Your task to perform on an android device: turn on javascript in the chrome app Image 0: 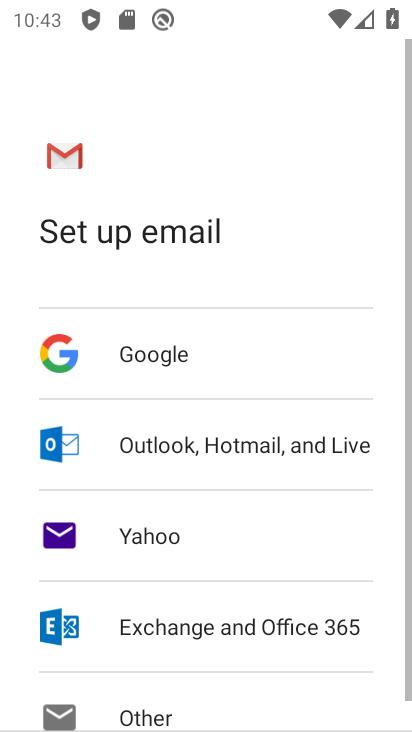
Step 0: press home button
Your task to perform on an android device: turn on javascript in the chrome app Image 1: 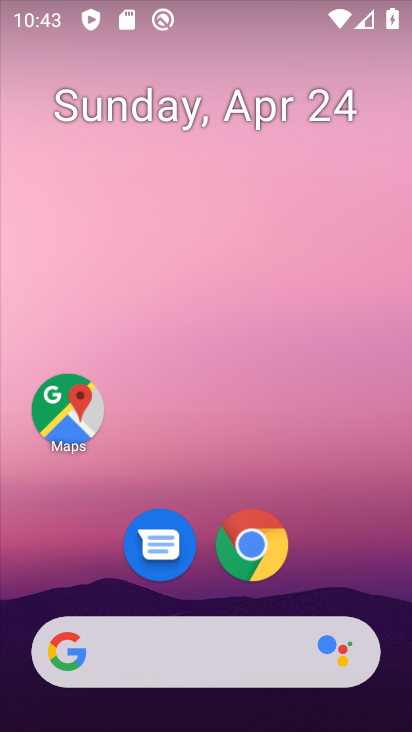
Step 1: drag from (347, 612) to (401, 122)
Your task to perform on an android device: turn on javascript in the chrome app Image 2: 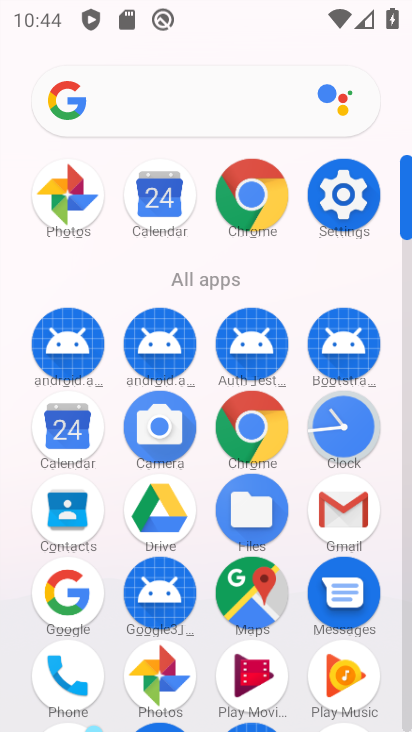
Step 2: click (251, 176)
Your task to perform on an android device: turn on javascript in the chrome app Image 3: 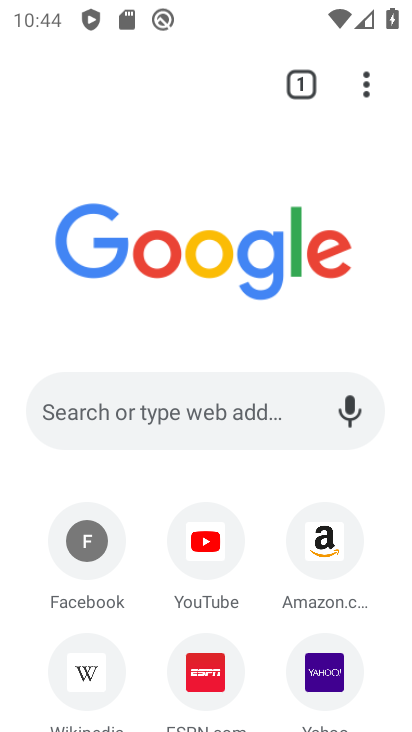
Step 3: click (357, 86)
Your task to perform on an android device: turn on javascript in the chrome app Image 4: 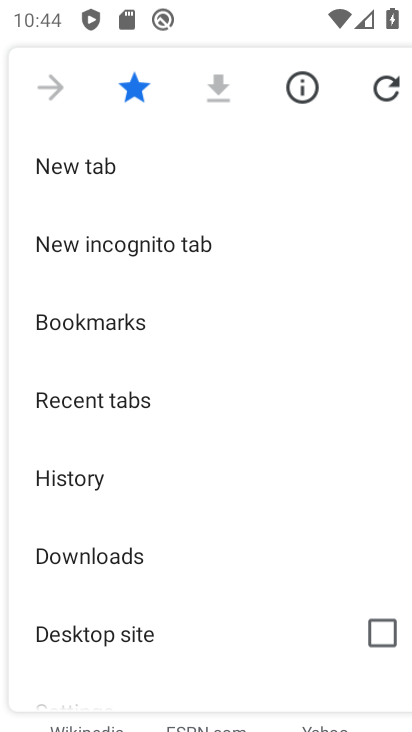
Step 4: drag from (187, 643) to (199, 562)
Your task to perform on an android device: turn on javascript in the chrome app Image 5: 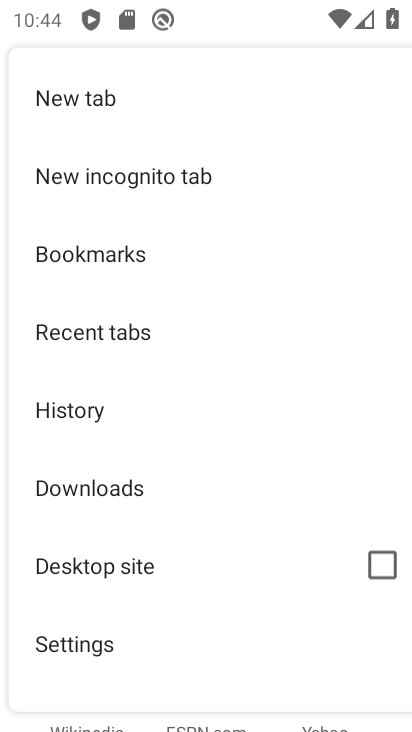
Step 5: click (95, 637)
Your task to perform on an android device: turn on javascript in the chrome app Image 6: 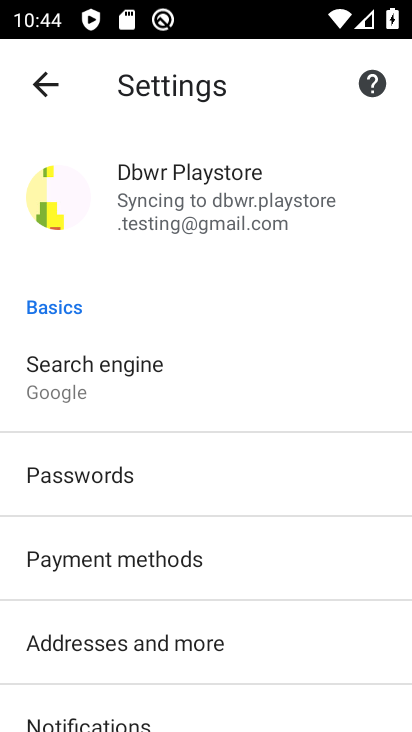
Step 6: drag from (170, 675) to (175, 519)
Your task to perform on an android device: turn on javascript in the chrome app Image 7: 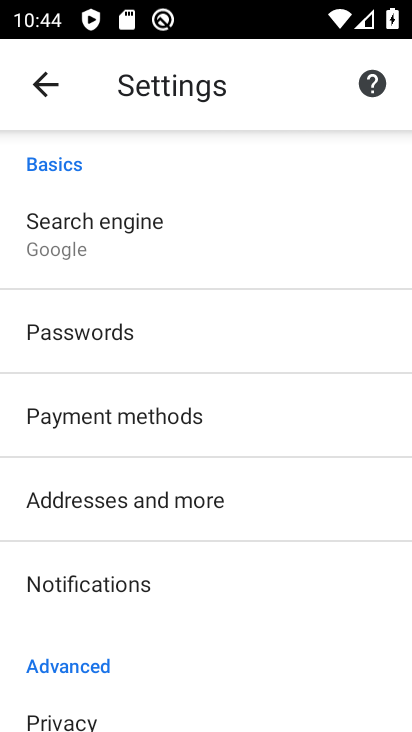
Step 7: drag from (147, 575) to (167, 479)
Your task to perform on an android device: turn on javascript in the chrome app Image 8: 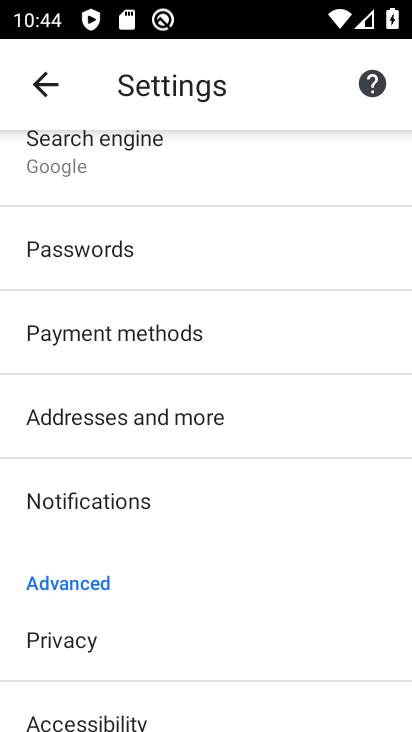
Step 8: drag from (154, 596) to (172, 326)
Your task to perform on an android device: turn on javascript in the chrome app Image 9: 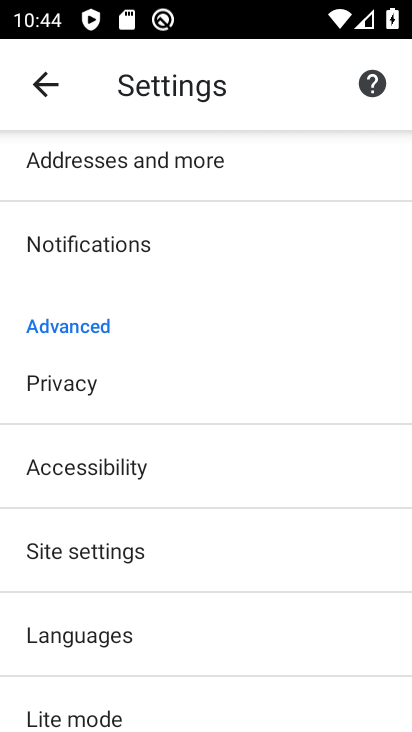
Step 9: click (108, 551)
Your task to perform on an android device: turn on javascript in the chrome app Image 10: 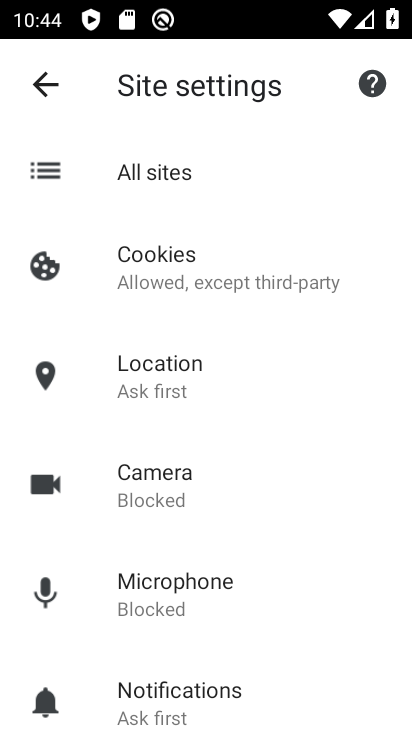
Step 10: drag from (231, 596) to (204, 385)
Your task to perform on an android device: turn on javascript in the chrome app Image 11: 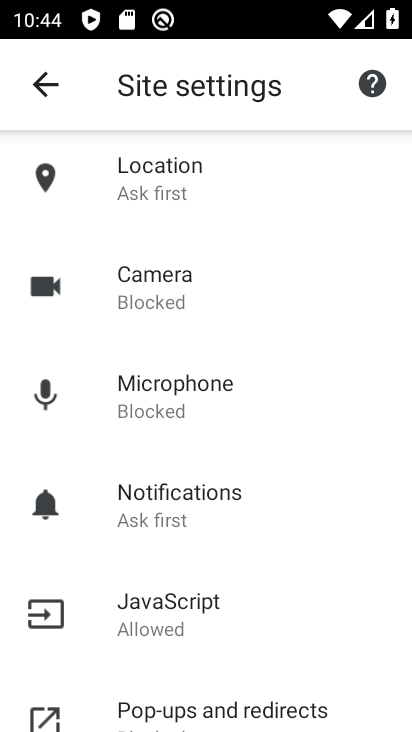
Step 11: click (213, 568)
Your task to perform on an android device: turn on javascript in the chrome app Image 12: 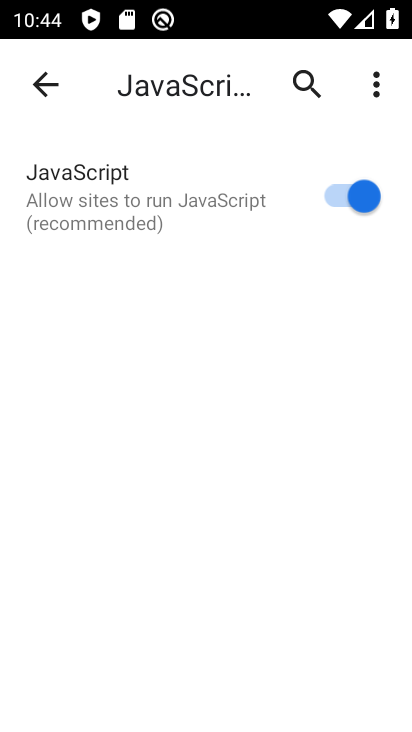
Step 12: click (249, 195)
Your task to perform on an android device: turn on javascript in the chrome app Image 13: 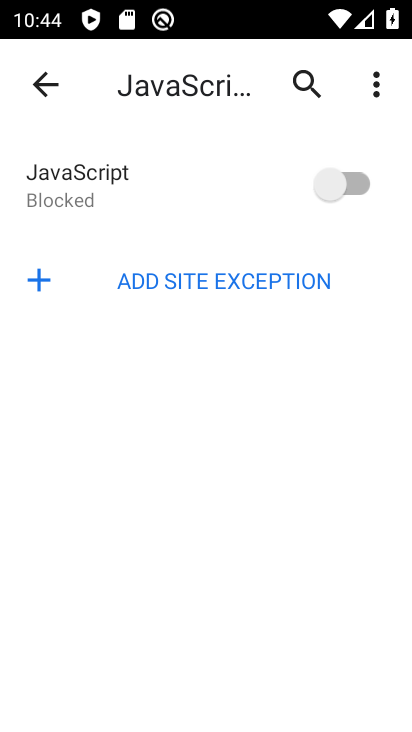
Step 13: click (249, 195)
Your task to perform on an android device: turn on javascript in the chrome app Image 14: 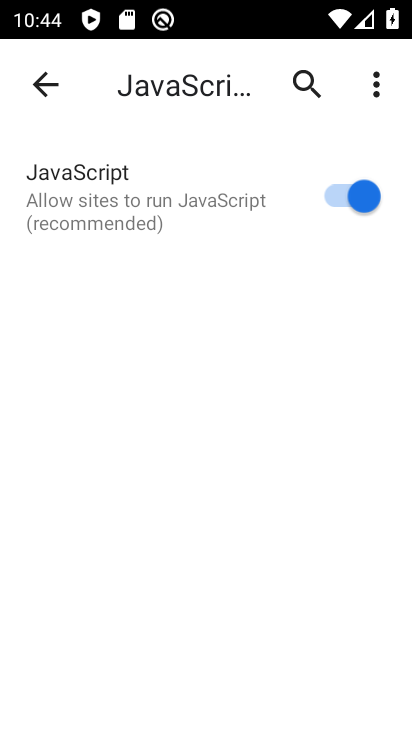
Step 14: task complete